Your task to perform on an android device: Find coffee shops on Maps Image 0: 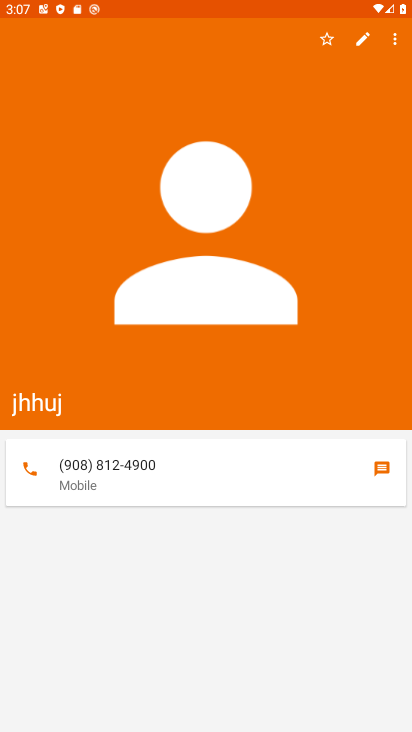
Step 0: press home button
Your task to perform on an android device: Find coffee shops on Maps Image 1: 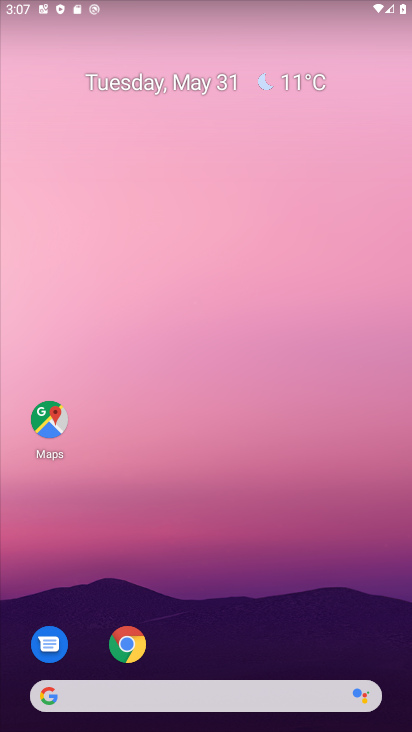
Step 1: click (45, 432)
Your task to perform on an android device: Find coffee shops on Maps Image 2: 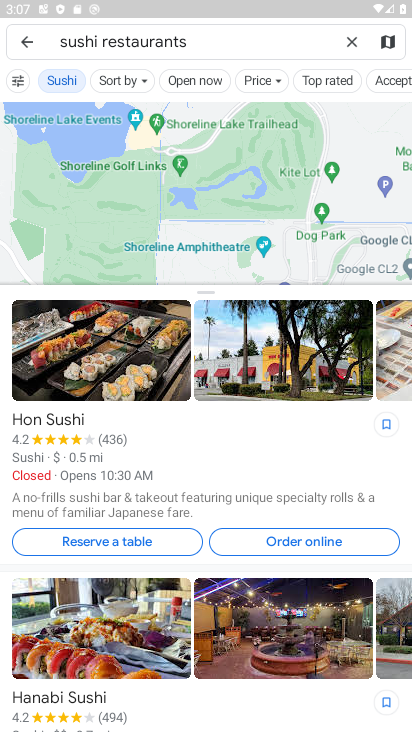
Step 2: click (346, 45)
Your task to perform on an android device: Find coffee shops on Maps Image 3: 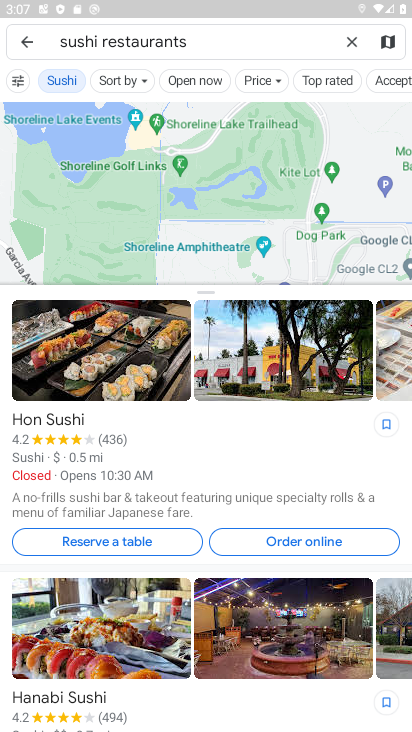
Step 3: click (346, 45)
Your task to perform on an android device: Find coffee shops on Maps Image 4: 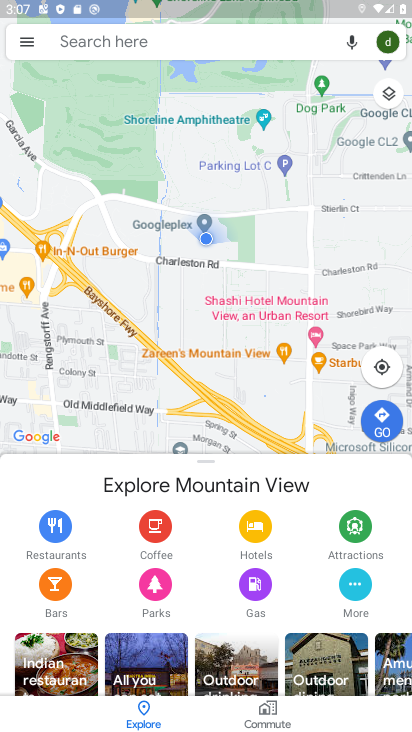
Step 4: click (130, 30)
Your task to perform on an android device: Find coffee shops on Maps Image 5: 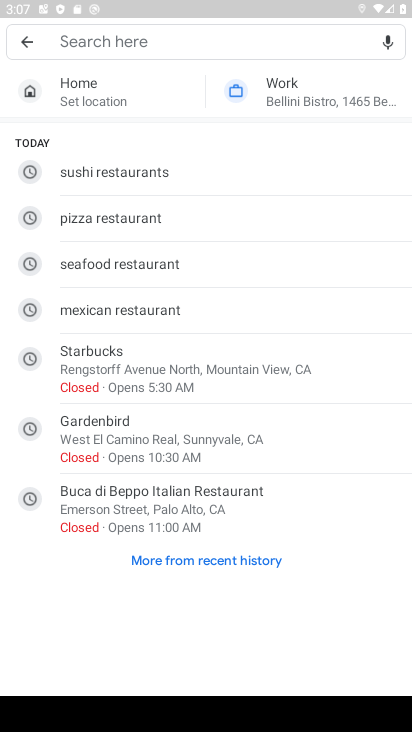
Step 5: type "coffee"
Your task to perform on an android device: Find coffee shops on Maps Image 6: 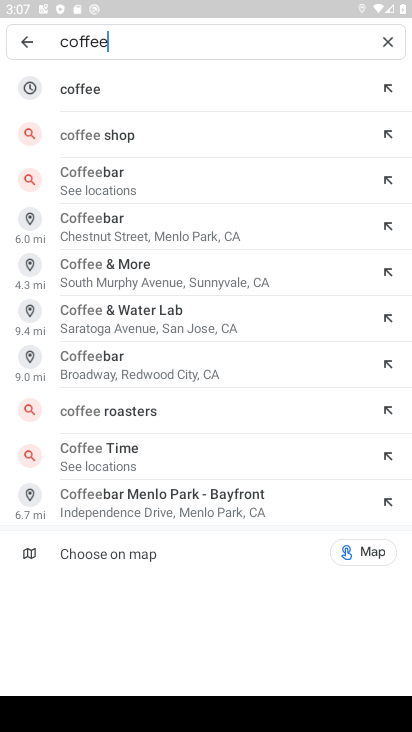
Step 6: click (90, 86)
Your task to perform on an android device: Find coffee shops on Maps Image 7: 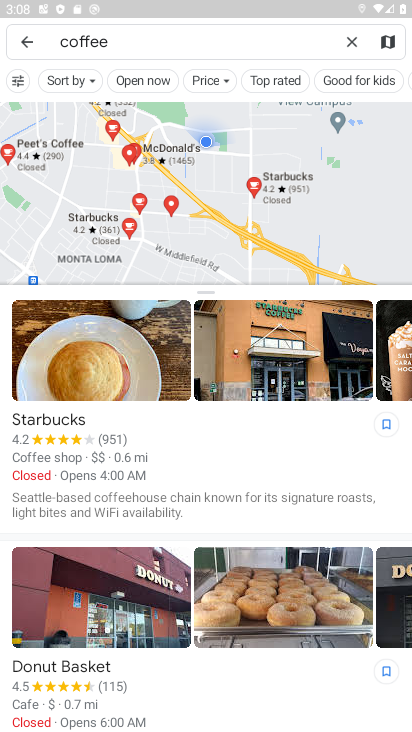
Step 7: task complete